Your task to perform on an android device: set an alarm Image 0: 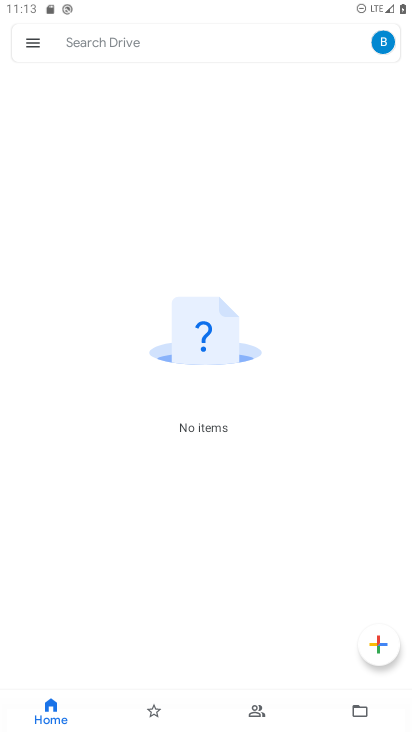
Step 0: press home button
Your task to perform on an android device: set an alarm Image 1: 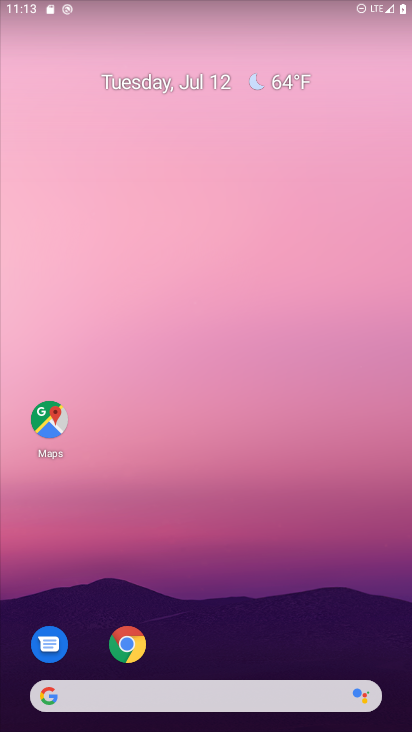
Step 1: drag from (229, 653) to (272, 126)
Your task to perform on an android device: set an alarm Image 2: 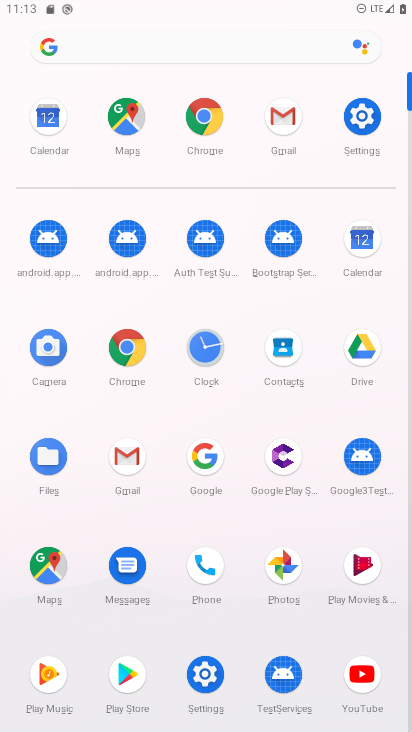
Step 2: click (206, 381)
Your task to perform on an android device: set an alarm Image 3: 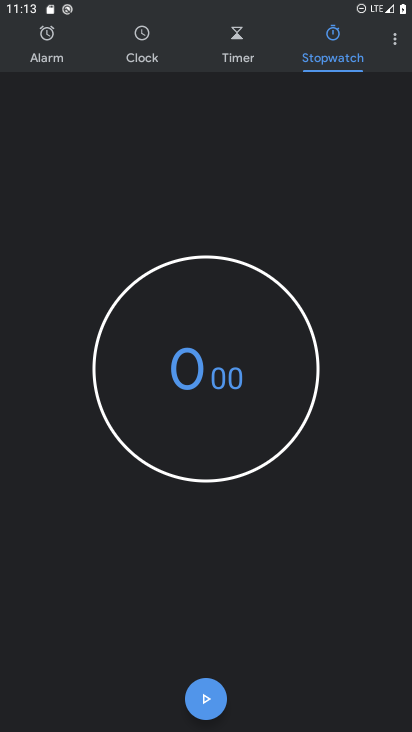
Step 3: click (68, 47)
Your task to perform on an android device: set an alarm Image 4: 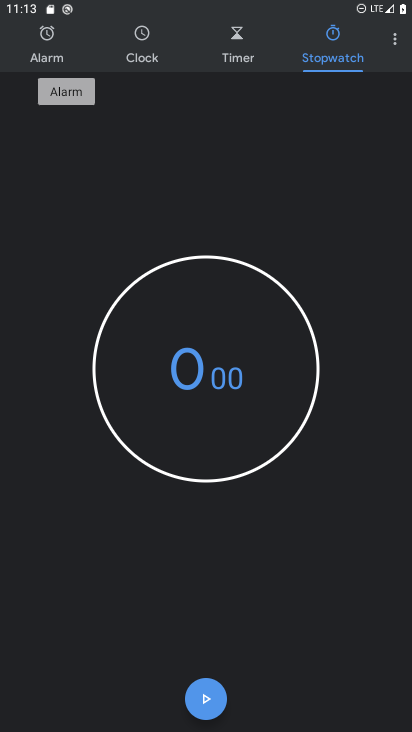
Step 4: click (58, 71)
Your task to perform on an android device: set an alarm Image 5: 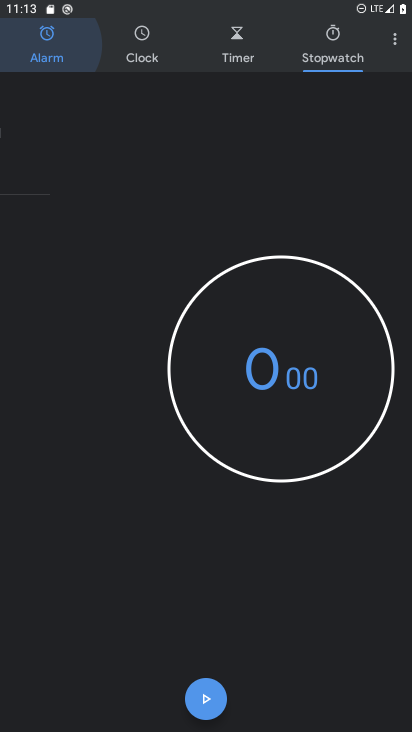
Step 5: click (58, 71)
Your task to perform on an android device: set an alarm Image 6: 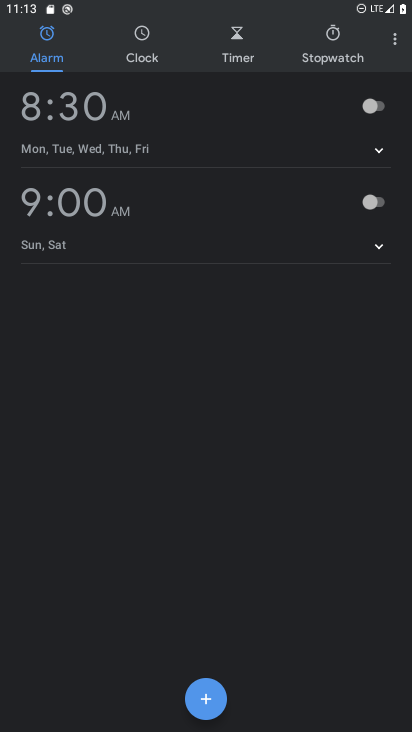
Step 6: click (342, 107)
Your task to perform on an android device: set an alarm Image 7: 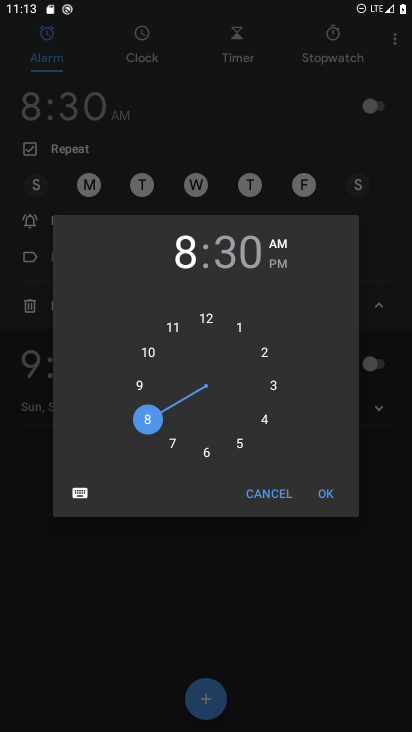
Step 7: task complete